Your task to perform on an android device: turn on translation in the chrome app Image 0: 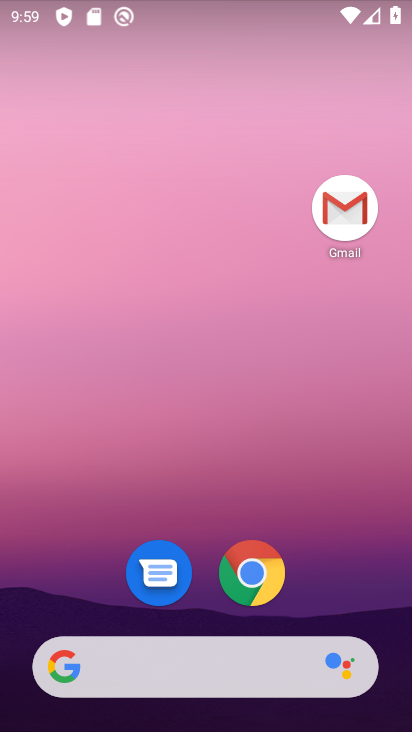
Step 0: drag from (376, 507) to (372, 60)
Your task to perform on an android device: turn on translation in the chrome app Image 1: 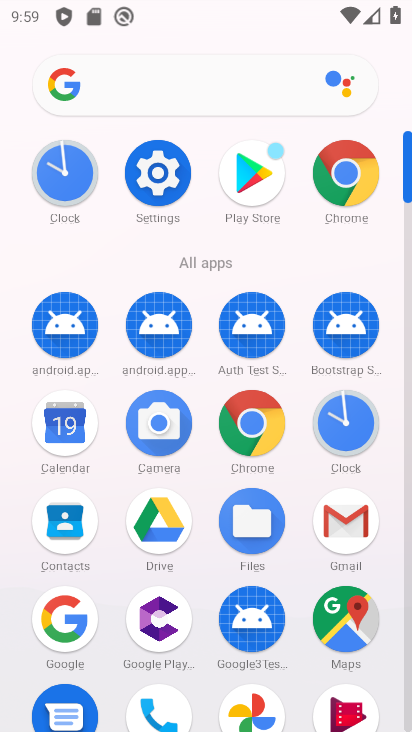
Step 1: click (349, 197)
Your task to perform on an android device: turn on translation in the chrome app Image 2: 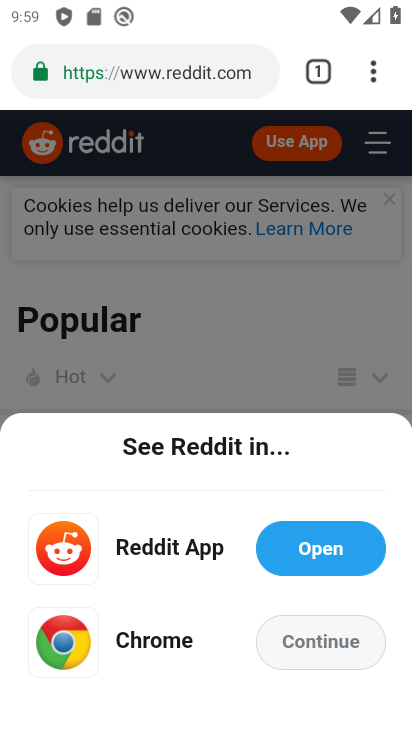
Step 2: click (374, 68)
Your task to perform on an android device: turn on translation in the chrome app Image 3: 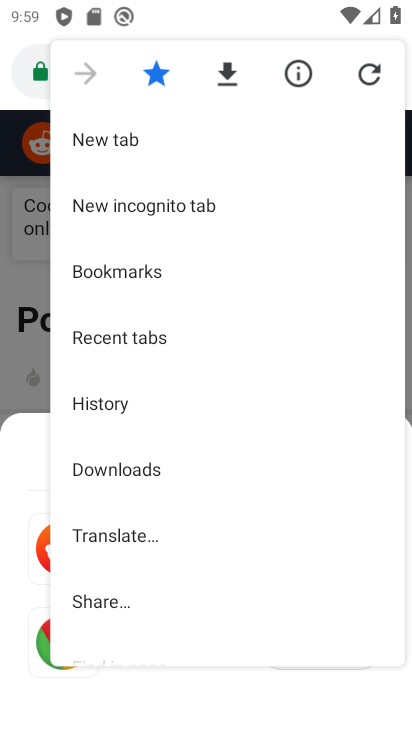
Step 3: drag from (303, 541) to (283, 270)
Your task to perform on an android device: turn on translation in the chrome app Image 4: 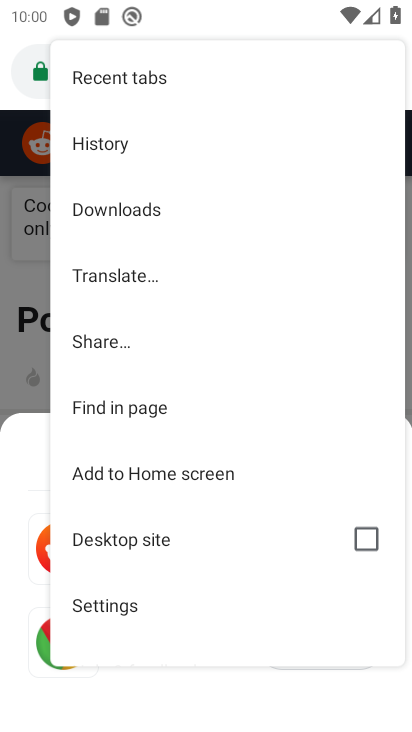
Step 4: drag from (268, 559) to (280, 276)
Your task to perform on an android device: turn on translation in the chrome app Image 5: 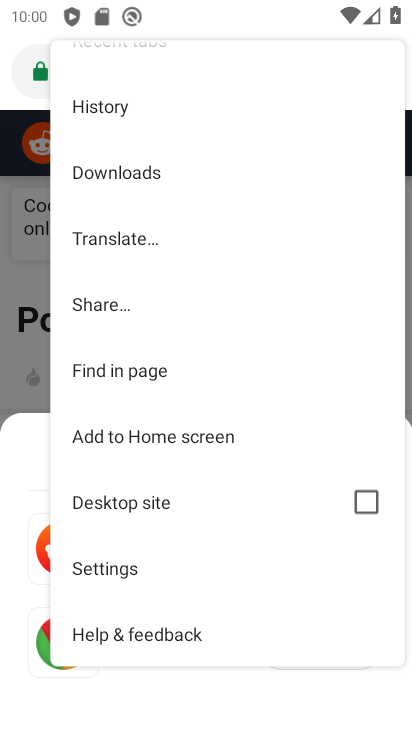
Step 5: click (123, 575)
Your task to perform on an android device: turn on translation in the chrome app Image 6: 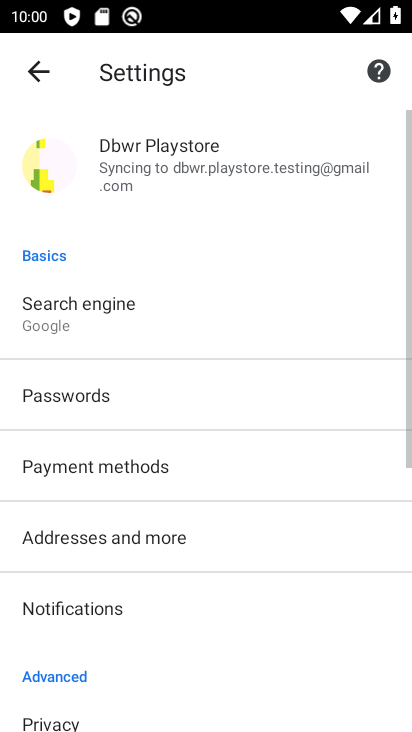
Step 6: drag from (274, 594) to (298, 318)
Your task to perform on an android device: turn on translation in the chrome app Image 7: 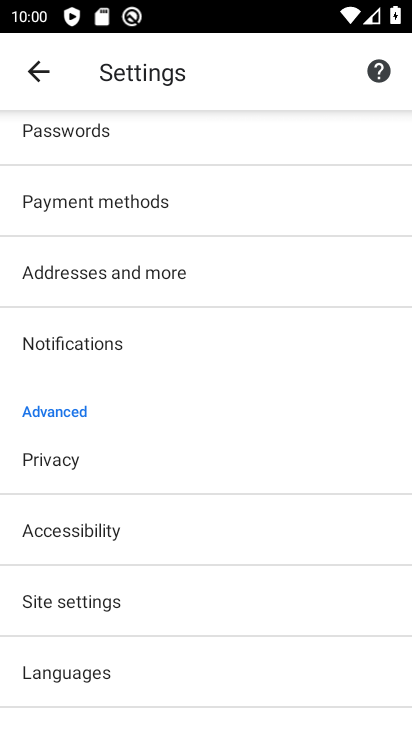
Step 7: drag from (267, 612) to (267, 339)
Your task to perform on an android device: turn on translation in the chrome app Image 8: 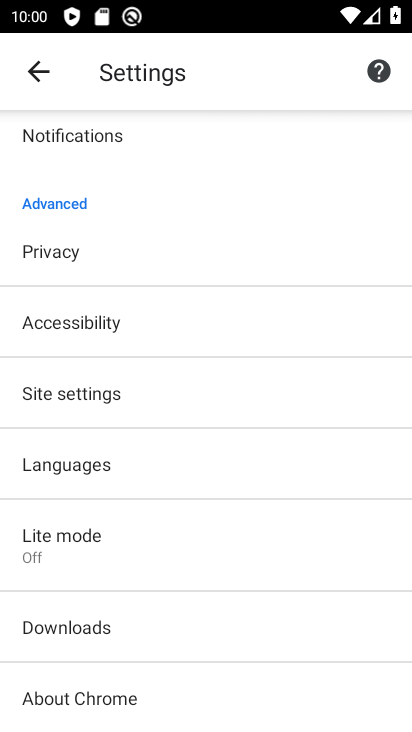
Step 8: click (239, 461)
Your task to perform on an android device: turn on translation in the chrome app Image 9: 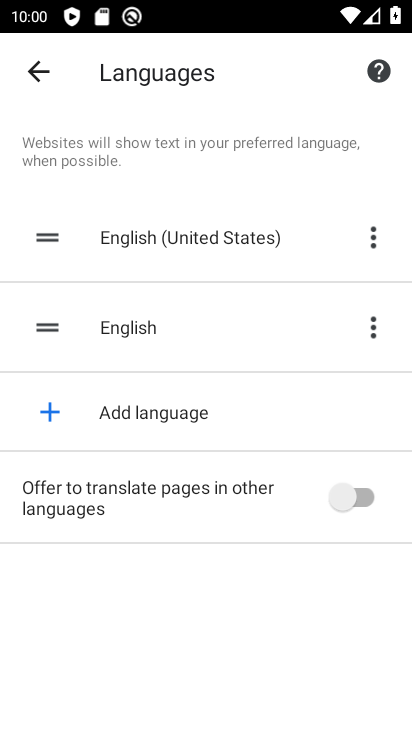
Step 9: click (349, 495)
Your task to perform on an android device: turn on translation in the chrome app Image 10: 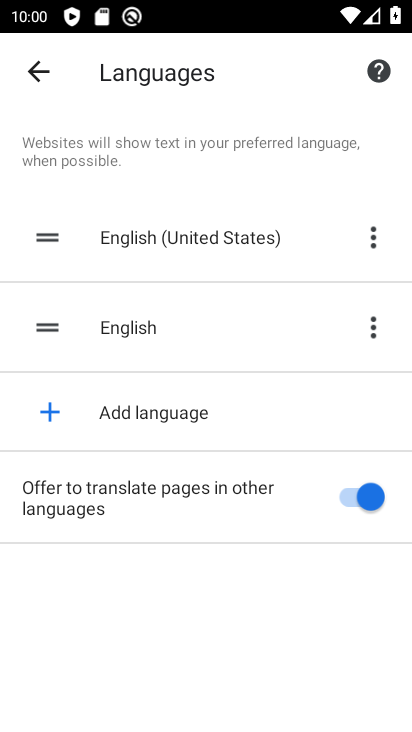
Step 10: task complete